Your task to perform on an android device: Search for "acer predator" on bestbuy.com, select the first entry, add it to the cart, then select checkout. Image 0: 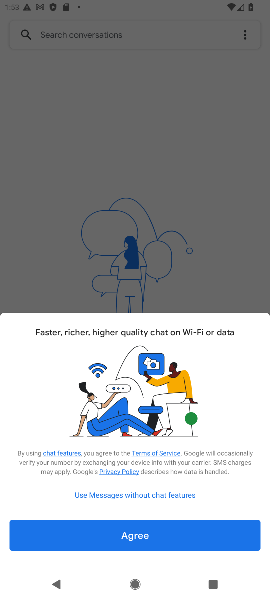
Step 0: press home button
Your task to perform on an android device: Search for "acer predator" on bestbuy.com, select the first entry, add it to the cart, then select checkout. Image 1: 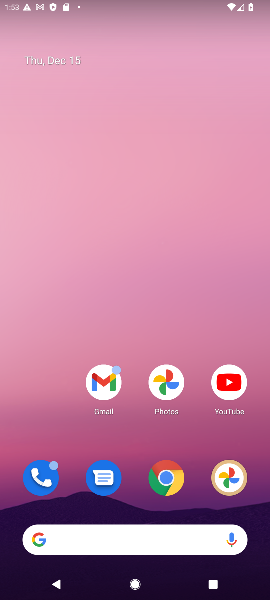
Step 1: click (173, 483)
Your task to perform on an android device: Search for "acer predator" on bestbuy.com, select the first entry, add it to the cart, then select checkout. Image 2: 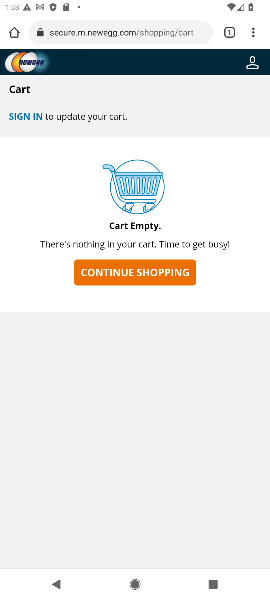
Step 2: click (88, 32)
Your task to perform on an android device: Search for "acer predator" on bestbuy.com, select the first entry, add it to the cart, then select checkout. Image 3: 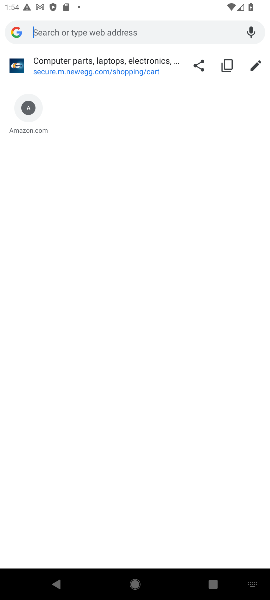
Step 3: type "bestbuy.com"
Your task to perform on an android device: Search for "acer predator" on bestbuy.com, select the first entry, add it to the cart, then select checkout. Image 4: 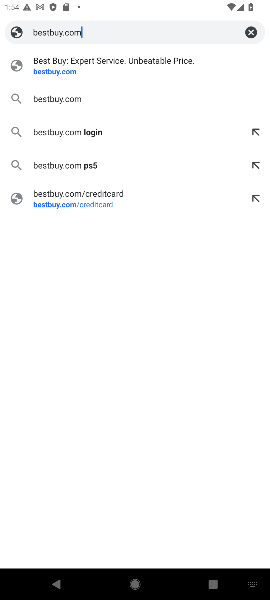
Step 4: click (52, 67)
Your task to perform on an android device: Search for "acer predator" on bestbuy.com, select the first entry, add it to the cart, then select checkout. Image 5: 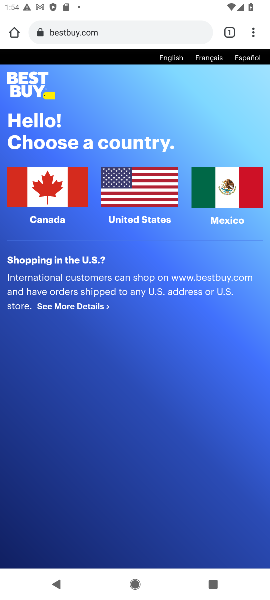
Step 5: click (123, 181)
Your task to perform on an android device: Search for "acer predator" on bestbuy.com, select the first entry, add it to the cart, then select checkout. Image 6: 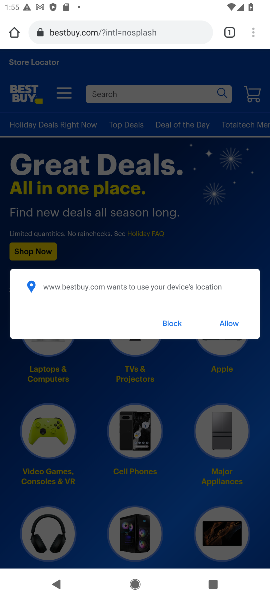
Step 6: click (171, 323)
Your task to perform on an android device: Search for "acer predator" on bestbuy.com, select the first entry, add it to the cart, then select checkout. Image 7: 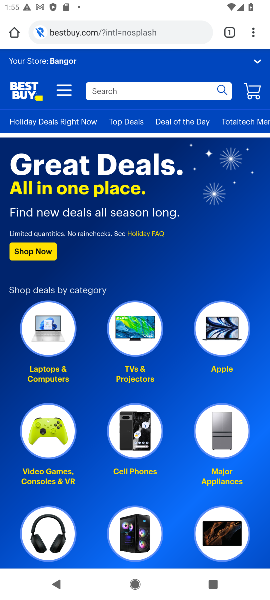
Step 7: click (136, 91)
Your task to perform on an android device: Search for "acer predator" on bestbuy.com, select the first entry, add it to the cart, then select checkout. Image 8: 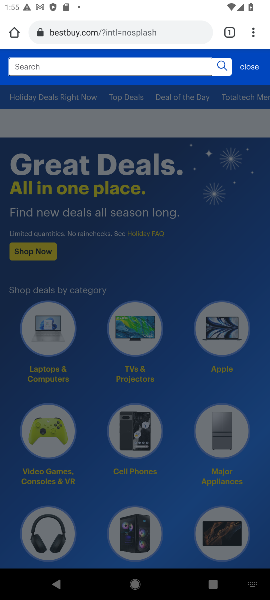
Step 8: type "acer predator"
Your task to perform on an android device: Search for "acer predator" on bestbuy.com, select the first entry, add it to the cart, then select checkout. Image 9: 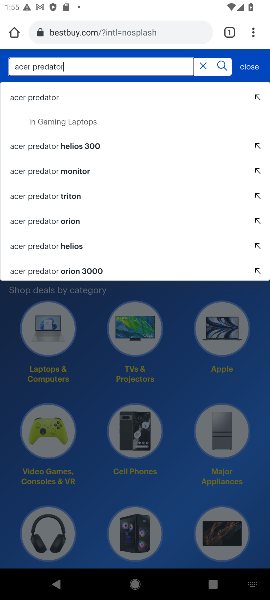
Step 9: click (39, 104)
Your task to perform on an android device: Search for "acer predator" on bestbuy.com, select the first entry, add it to the cart, then select checkout. Image 10: 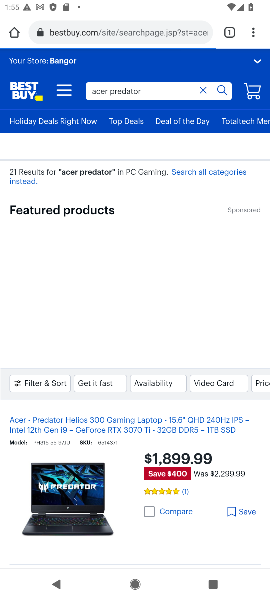
Step 10: drag from (93, 448) to (87, 276)
Your task to perform on an android device: Search for "acer predator" on bestbuy.com, select the first entry, add it to the cart, then select checkout. Image 11: 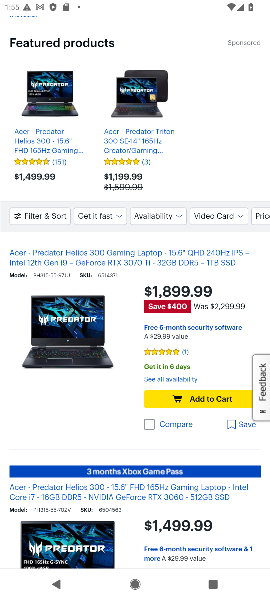
Step 11: click (181, 397)
Your task to perform on an android device: Search for "acer predator" on bestbuy.com, select the first entry, add it to the cart, then select checkout. Image 12: 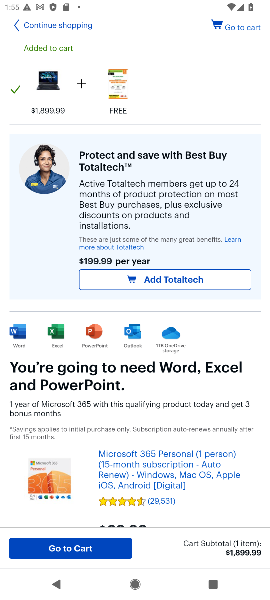
Step 12: click (236, 26)
Your task to perform on an android device: Search for "acer predator" on bestbuy.com, select the first entry, add it to the cart, then select checkout. Image 13: 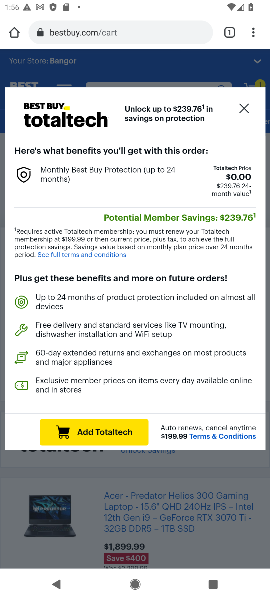
Step 13: click (244, 111)
Your task to perform on an android device: Search for "acer predator" on bestbuy.com, select the first entry, add it to the cart, then select checkout. Image 14: 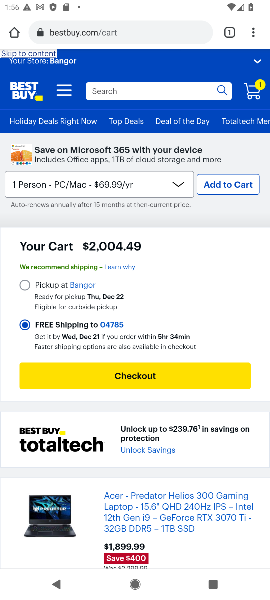
Step 14: click (118, 367)
Your task to perform on an android device: Search for "acer predator" on bestbuy.com, select the first entry, add it to the cart, then select checkout. Image 15: 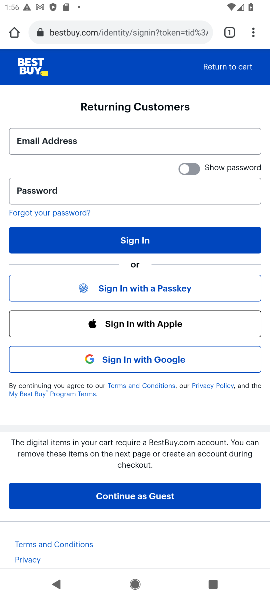
Step 15: task complete